Your task to perform on an android device: Turn on the flashlight Image 0: 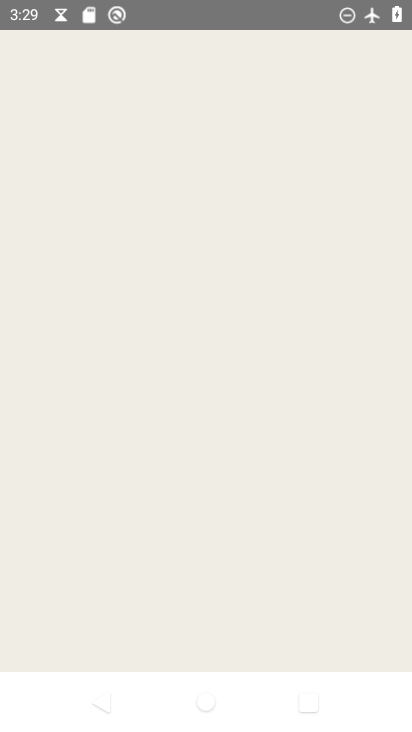
Step 0: press home button
Your task to perform on an android device: Turn on the flashlight Image 1: 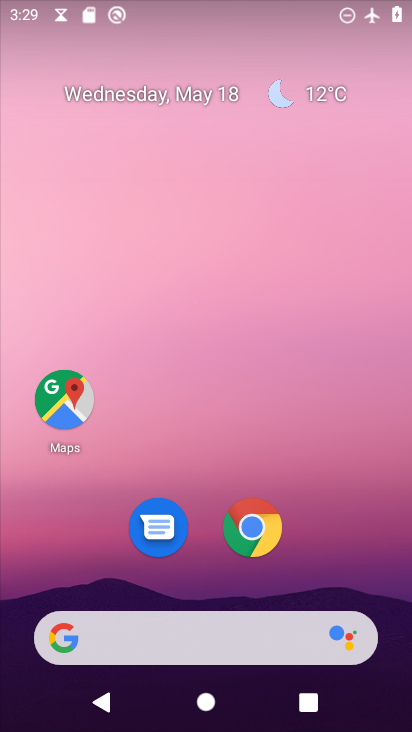
Step 1: task complete